Your task to perform on an android device: See recent photos Image 0: 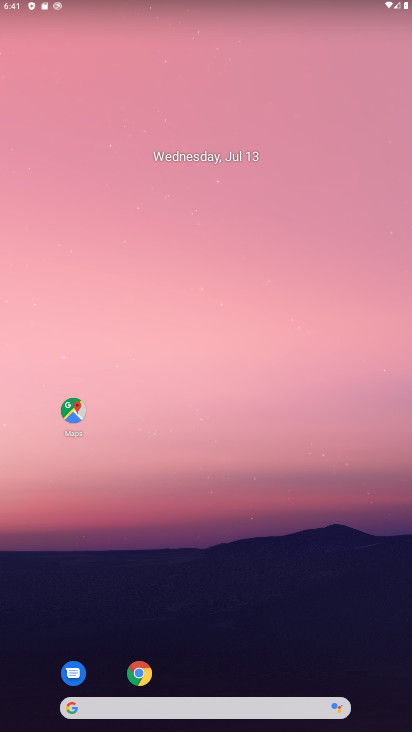
Step 0: drag from (236, 519) to (392, 6)
Your task to perform on an android device: See recent photos Image 1: 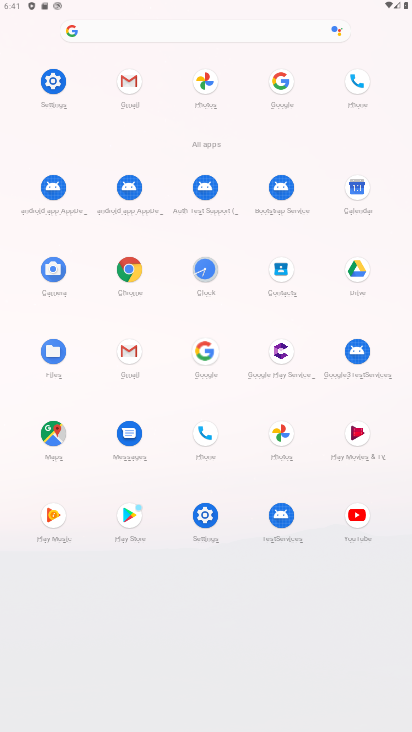
Step 1: click (201, 91)
Your task to perform on an android device: See recent photos Image 2: 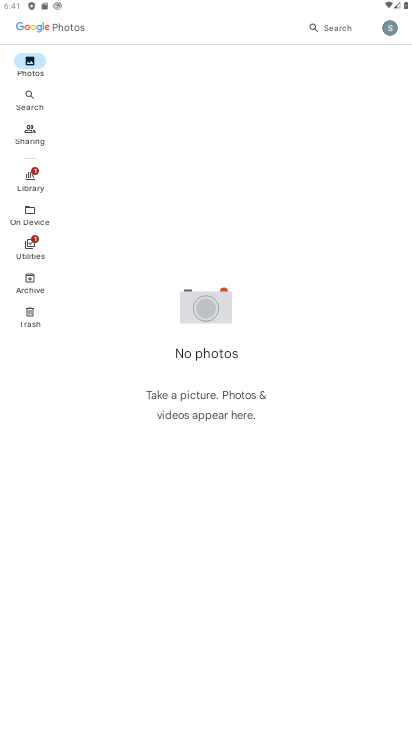
Step 2: task complete